Your task to perform on an android device: delete the emails in spam in the gmail app Image 0: 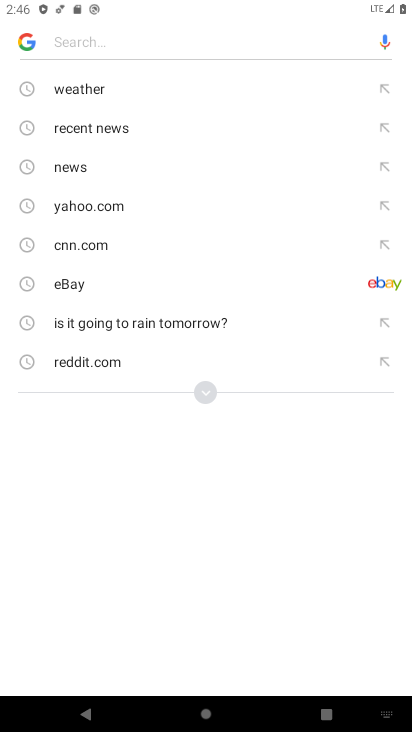
Step 0: press home button
Your task to perform on an android device: delete the emails in spam in the gmail app Image 1: 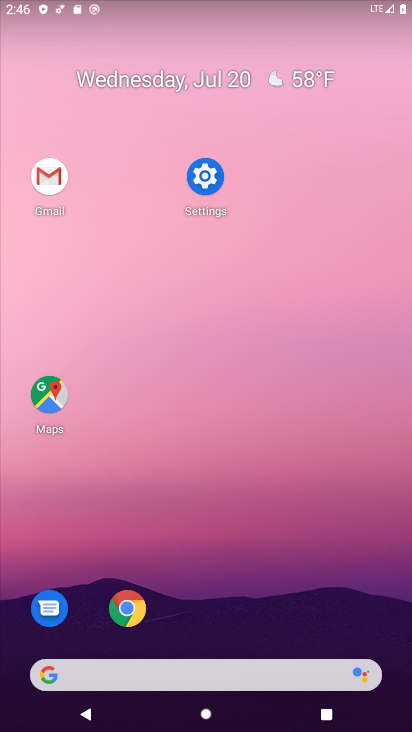
Step 1: click (40, 197)
Your task to perform on an android device: delete the emails in spam in the gmail app Image 2: 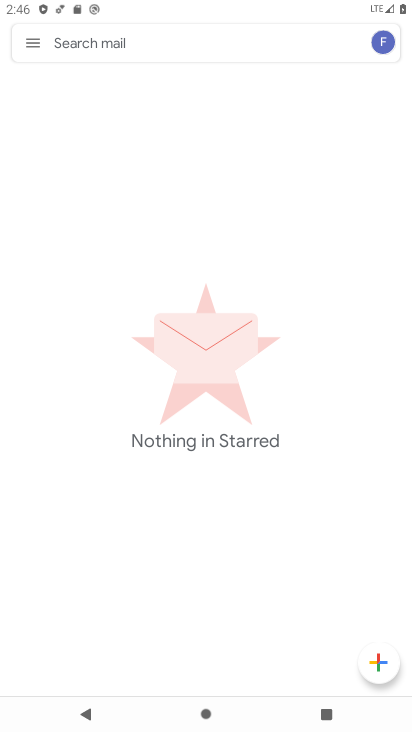
Step 2: click (49, 37)
Your task to perform on an android device: delete the emails in spam in the gmail app Image 3: 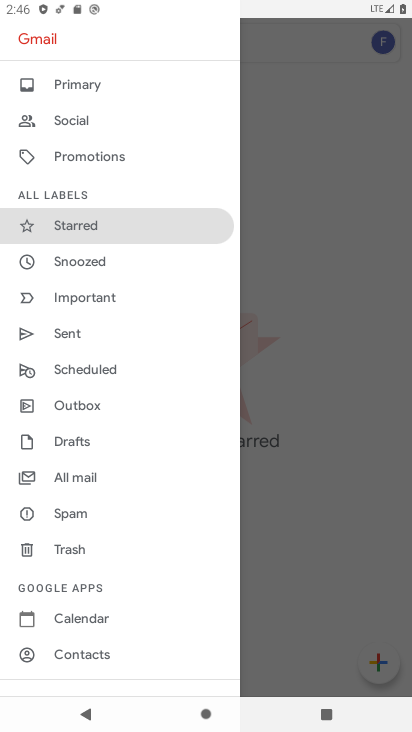
Step 3: click (75, 509)
Your task to perform on an android device: delete the emails in spam in the gmail app Image 4: 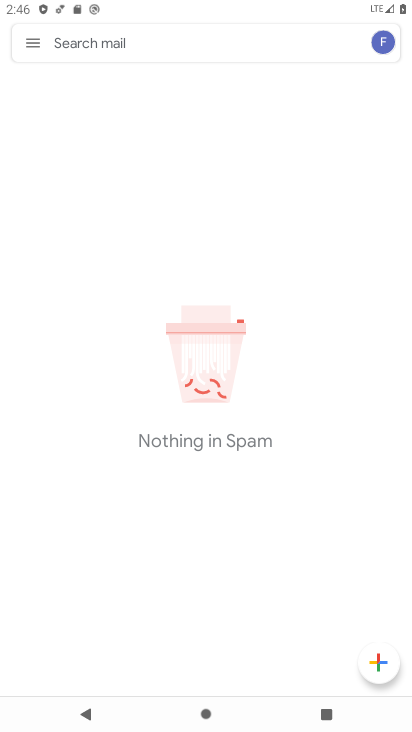
Step 4: task complete